Your task to perform on an android device: turn off picture-in-picture Image 0: 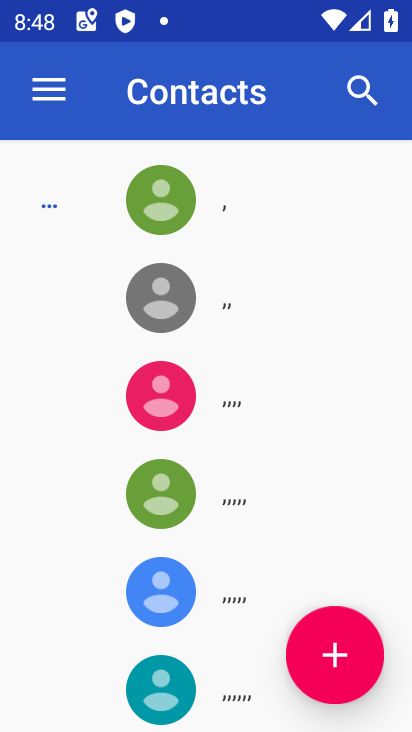
Step 0: press home button
Your task to perform on an android device: turn off picture-in-picture Image 1: 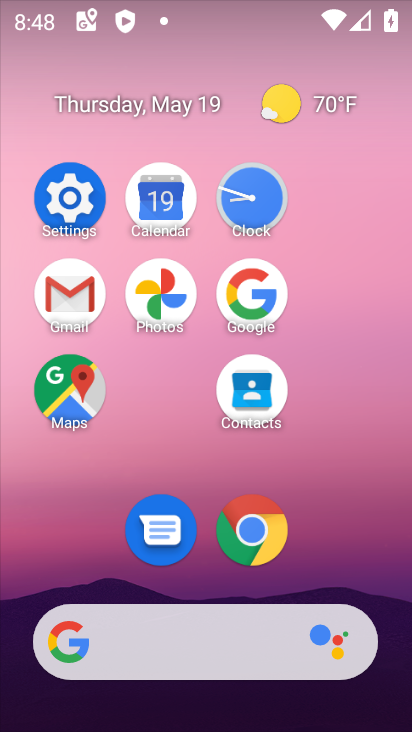
Step 1: click (250, 537)
Your task to perform on an android device: turn off picture-in-picture Image 2: 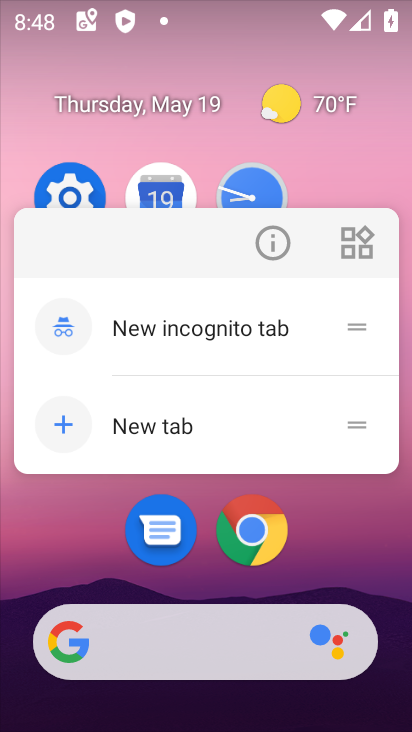
Step 2: click (269, 252)
Your task to perform on an android device: turn off picture-in-picture Image 3: 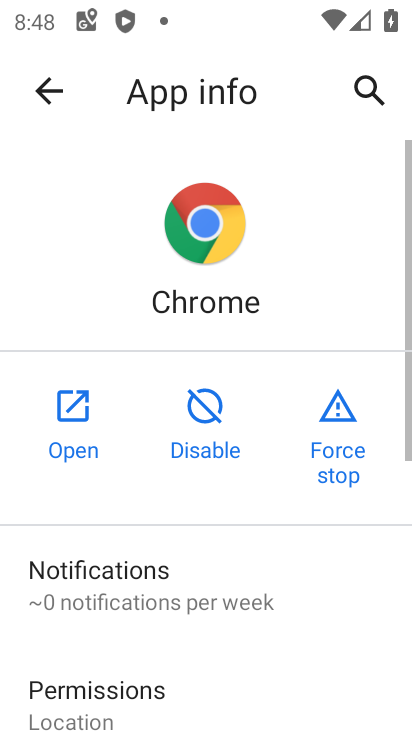
Step 3: drag from (256, 576) to (300, 144)
Your task to perform on an android device: turn off picture-in-picture Image 4: 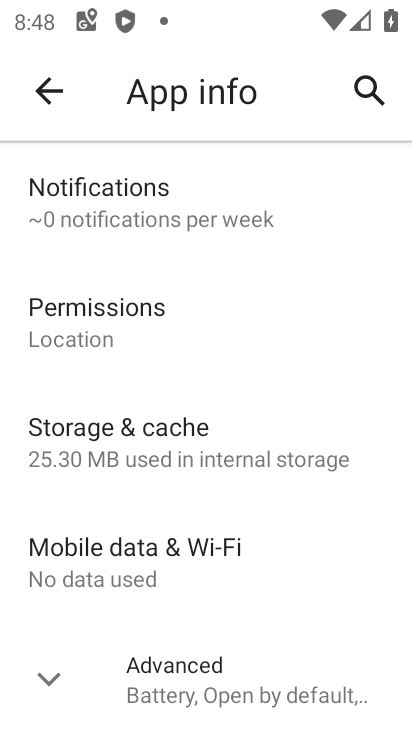
Step 4: drag from (295, 569) to (310, 246)
Your task to perform on an android device: turn off picture-in-picture Image 5: 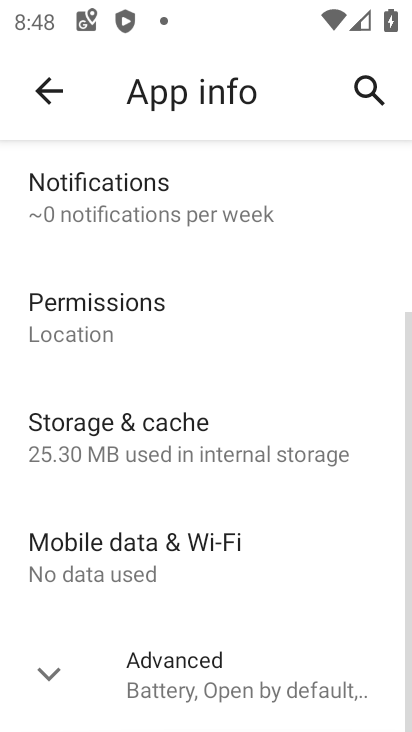
Step 5: click (253, 662)
Your task to perform on an android device: turn off picture-in-picture Image 6: 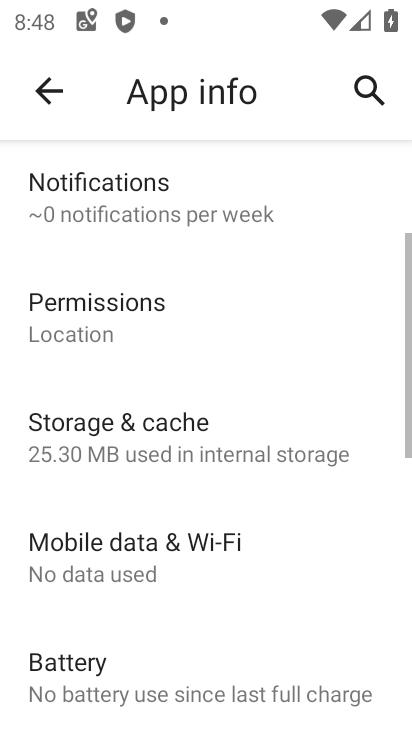
Step 6: drag from (253, 661) to (272, 178)
Your task to perform on an android device: turn off picture-in-picture Image 7: 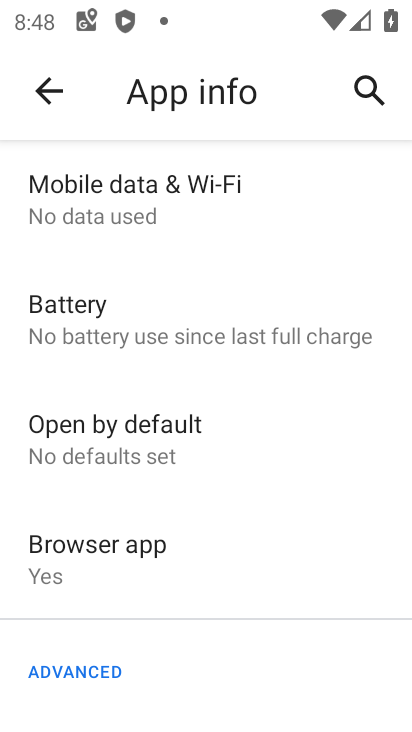
Step 7: drag from (228, 615) to (261, 169)
Your task to perform on an android device: turn off picture-in-picture Image 8: 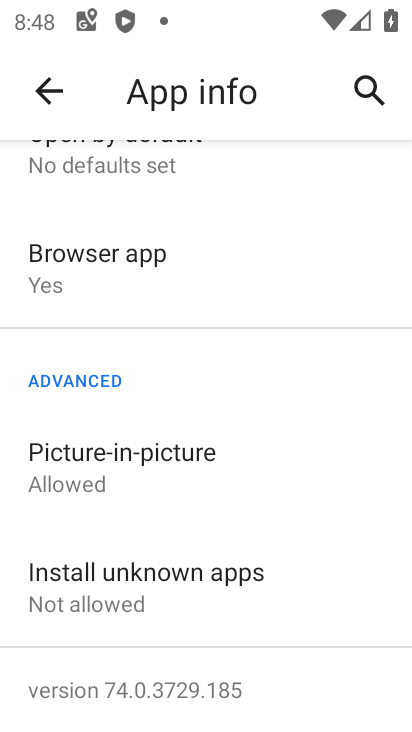
Step 8: drag from (248, 582) to (253, 195)
Your task to perform on an android device: turn off picture-in-picture Image 9: 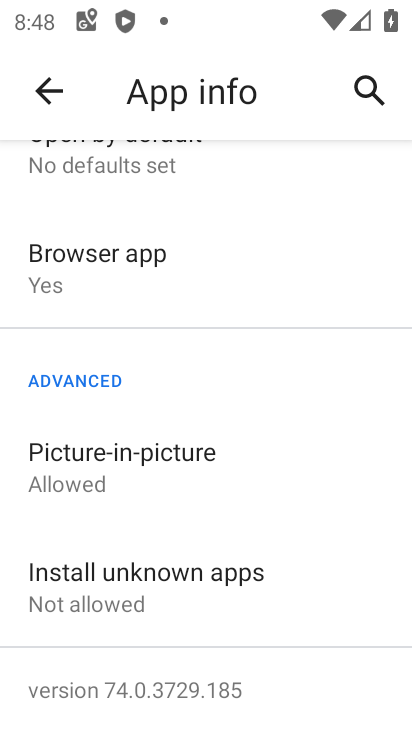
Step 9: click (201, 473)
Your task to perform on an android device: turn off picture-in-picture Image 10: 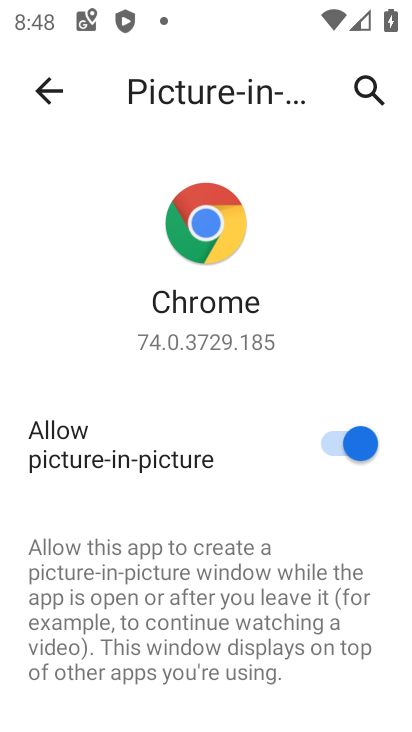
Step 10: click (364, 433)
Your task to perform on an android device: turn off picture-in-picture Image 11: 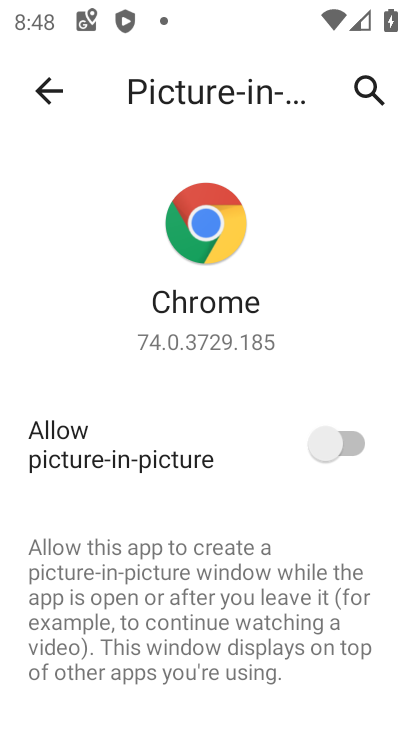
Step 11: task complete